Your task to perform on an android device: Open wifi settings Image 0: 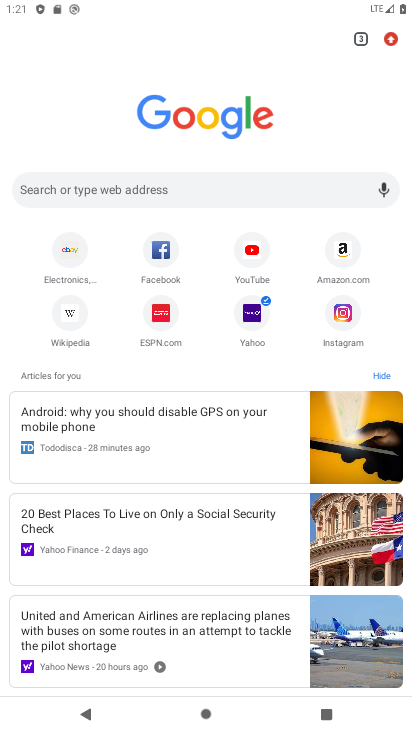
Step 0: press home button
Your task to perform on an android device: Open wifi settings Image 1: 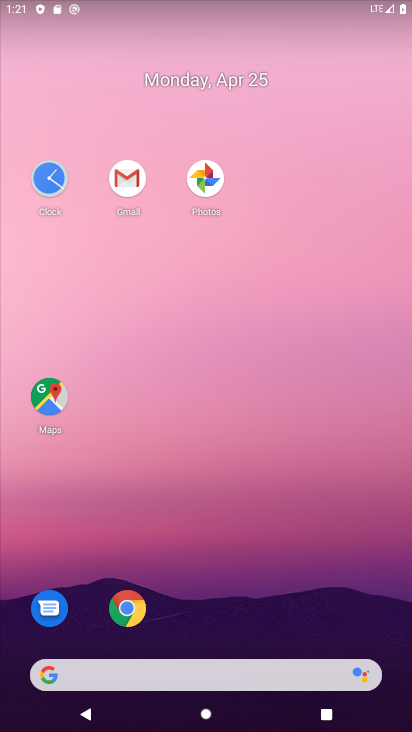
Step 1: drag from (222, 646) to (258, 174)
Your task to perform on an android device: Open wifi settings Image 2: 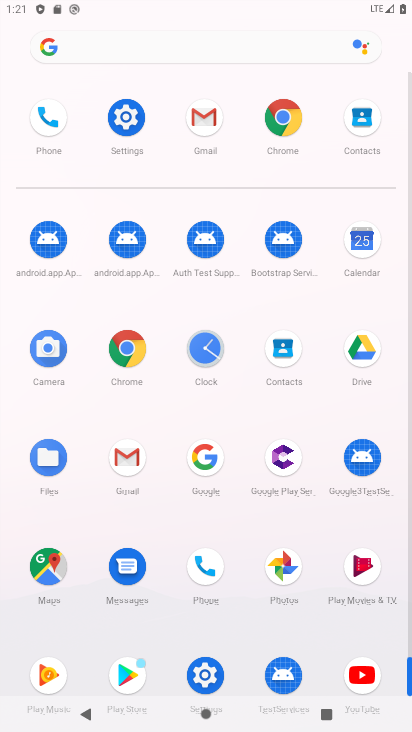
Step 2: drag from (126, 112) to (84, 259)
Your task to perform on an android device: Open wifi settings Image 3: 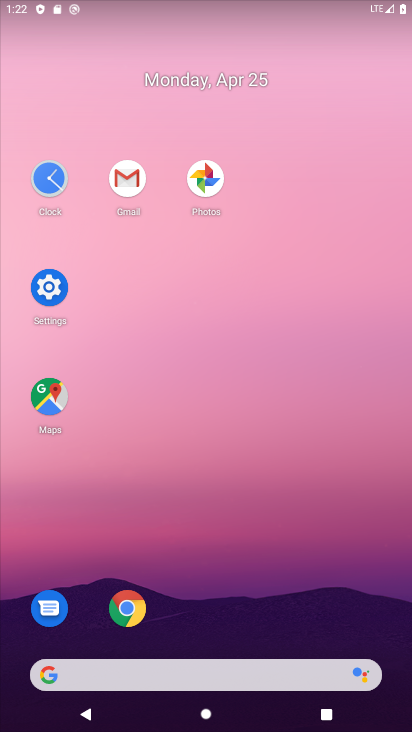
Step 3: click (46, 292)
Your task to perform on an android device: Open wifi settings Image 4: 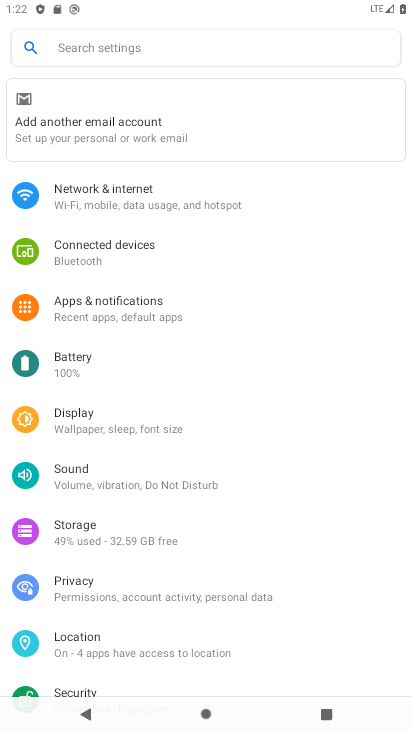
Step 4: click (164, 213)
Your task to perform on an android device: Open wifi settings Image 5: 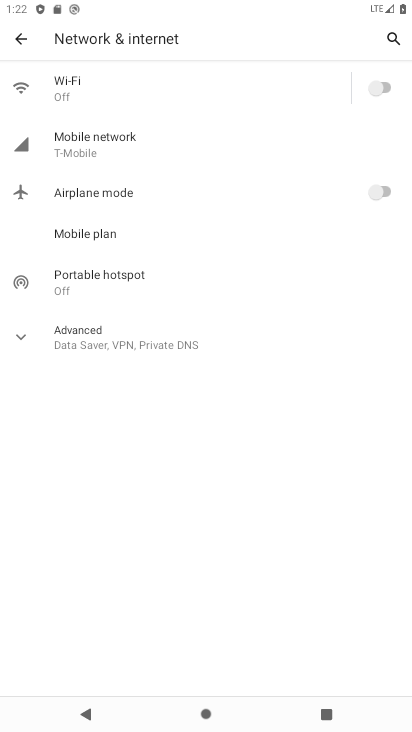
Step 5: click (219, 84)
Your task to perform on an android device: Open wifi settings Image 6: 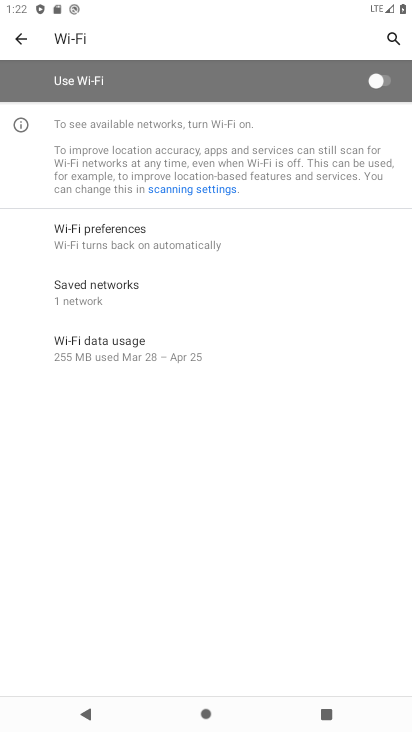
Step 6: click (371, 79)
Your task to perform on an android device: Open wifi settings Image 7: 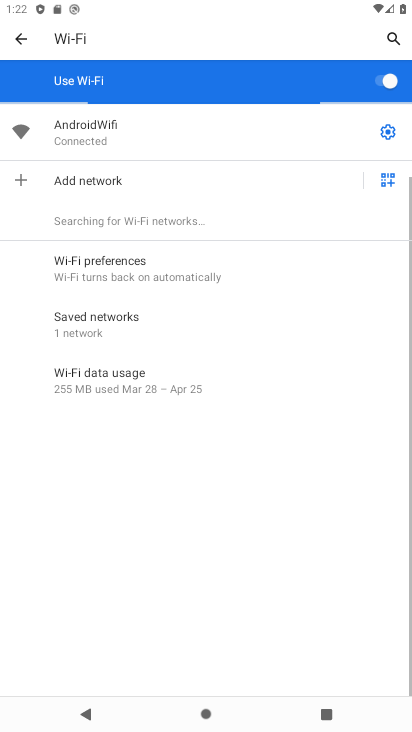
Step 7: click (385, 139)
Your task to perform on an android device: Open wifi settings Image 8: 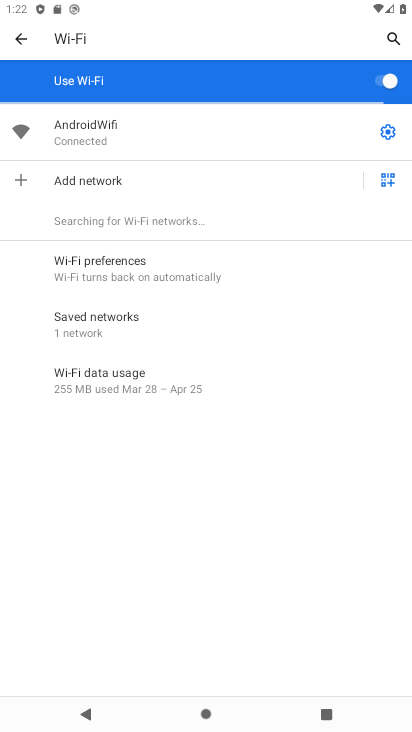
Step 8: click (391, 135)
Your task to perform on an android device: Open wifi settings Image 9: 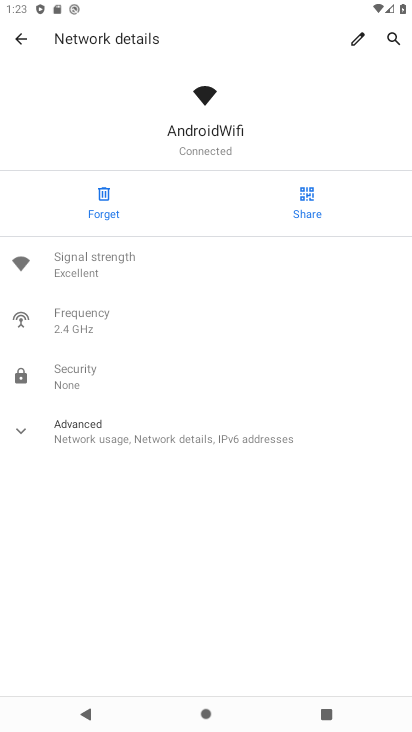
Step 9: task complete